Your task to perform on an android device: What's the weather? Image 0: 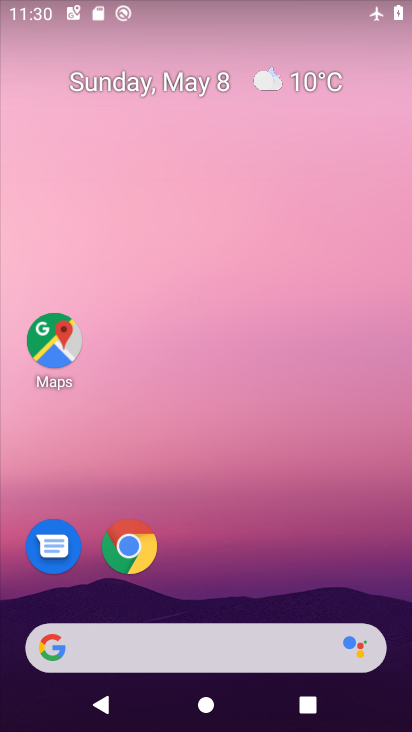
Step 0: click (293, 79)
Your task to perform on an android device: What's the weather? Image 1: 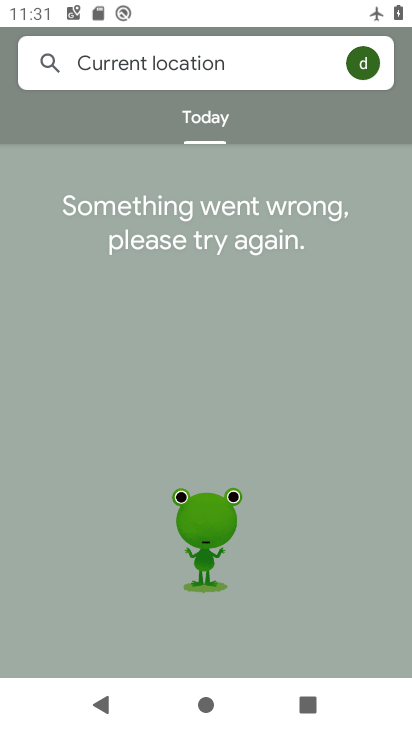
Step 1: task complete